Your task to perform on an android device: change text size in settings app Image 0: 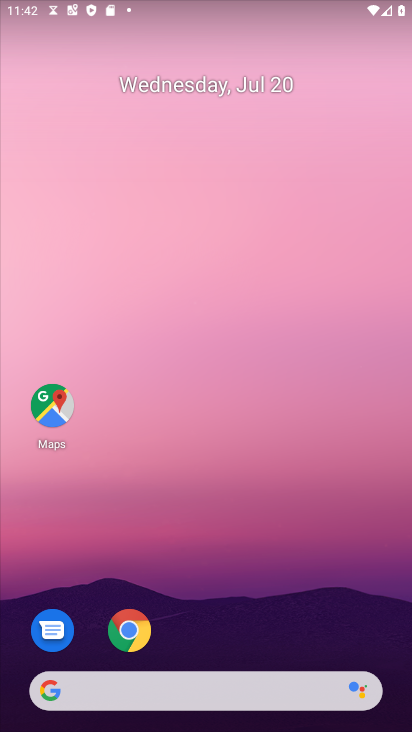
Step 0: drag from (78, 448) to (222, 75)
Your task to perform on an android device: change text size in settings app Image 1: 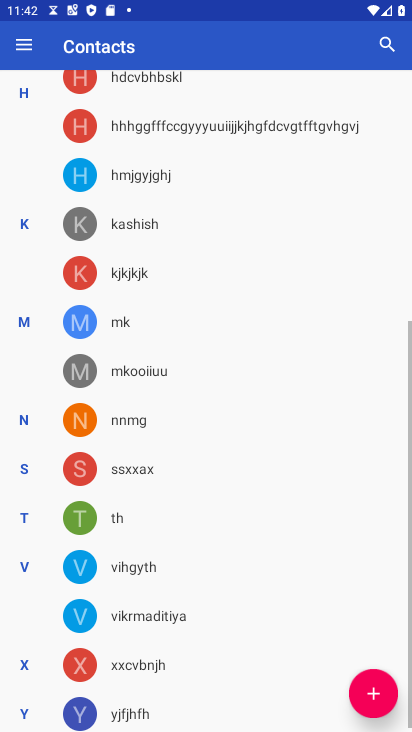
Step 1: press home button
Your task to perform on an android device: change text size in settings app Image 2: 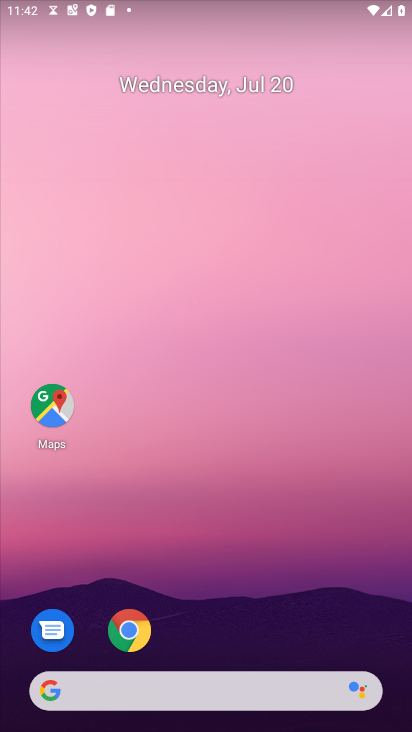
Step 2: drag from (31, 702) to (387, 7)
Your task to perform on an android device: change text size in settings app Image 3: 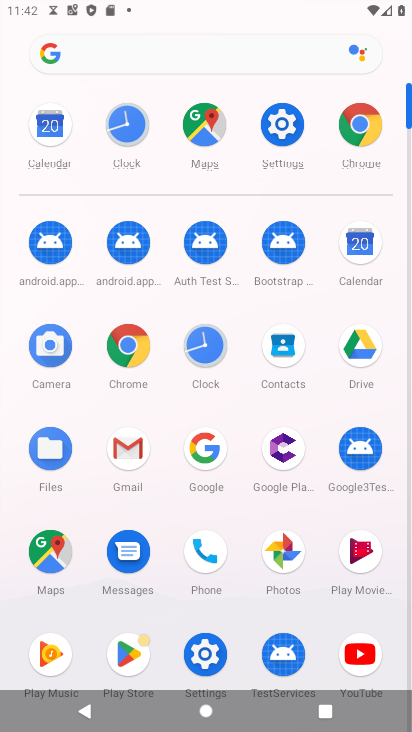
Step 3: click (201, 632)
Your task to perform on an android device: change text size in settings app Image 4: 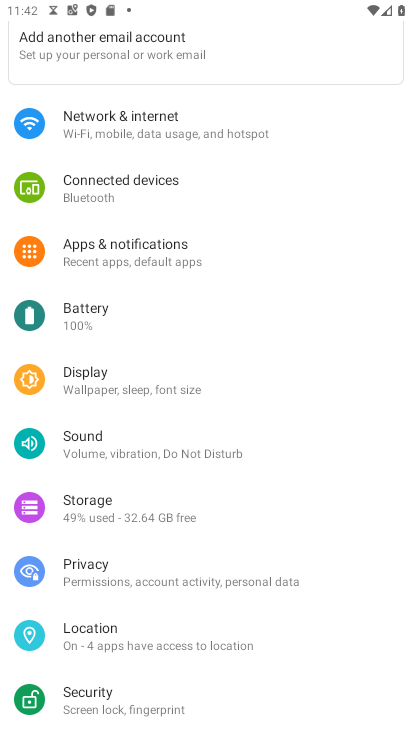
Step 4: click (164, 380)
Your task to perform on an android device: change text size in settings app Image 5: 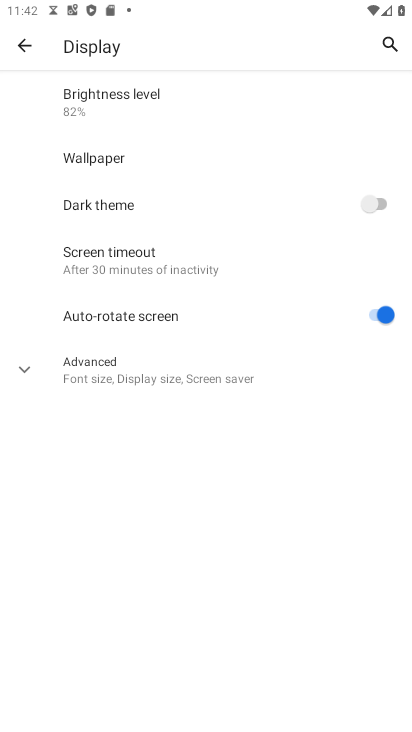
Step 5: click (127, 365)
Your task to perform on an android device: change text size in settings app Image 6: 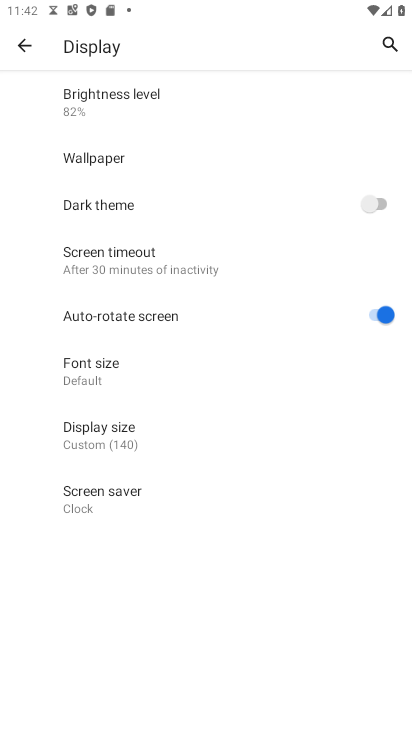
Step 6: click (121, 370)
Your task to perform on an android device: change text size in settings app Image 7: 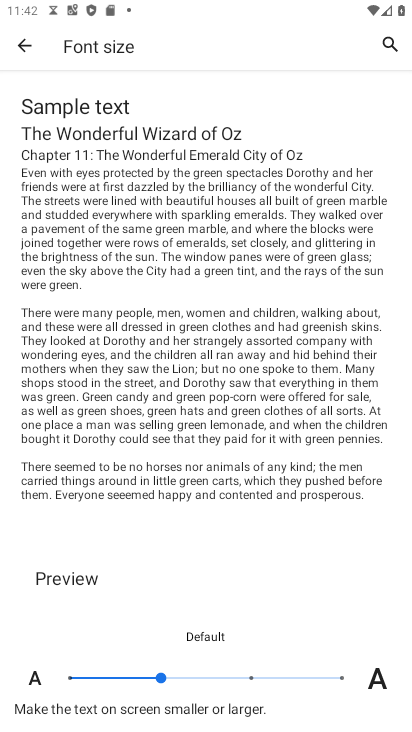
Step 7: click (191, 675)
Your task to perform on an android device: change text size in settings app Image 8: 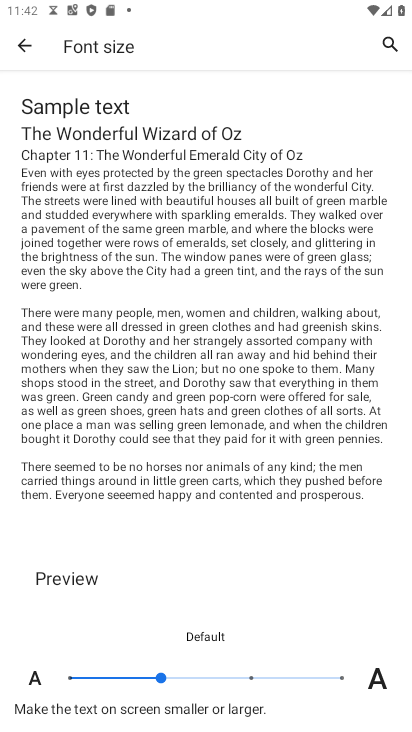
Step 8: click (193, 675)
Your task to perform on an android device: change text size in settings app Image 9: 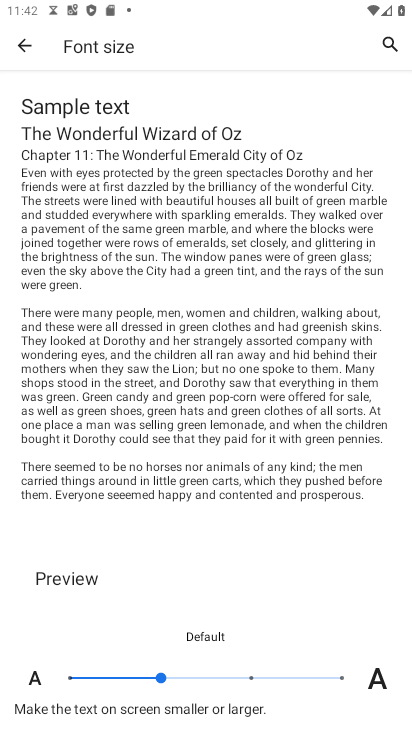
Step 9: drag from (160, 673) to (215, 677)
Your task to perform on an android device: change text size in settings app Image 10: 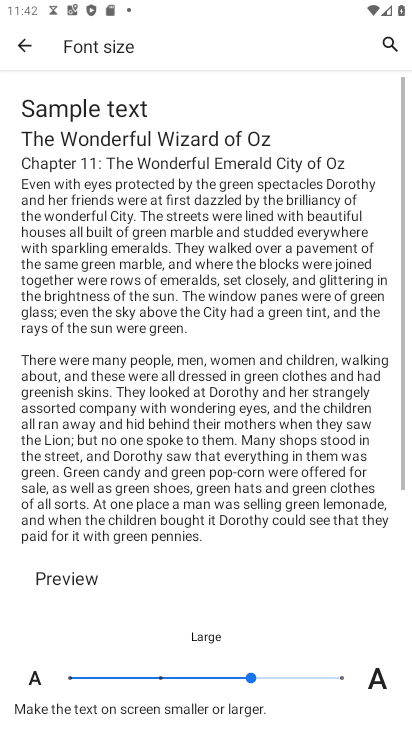
Step 10: click (196, 671)
Your task to perform on an android device: change text size in settings app Image 11: 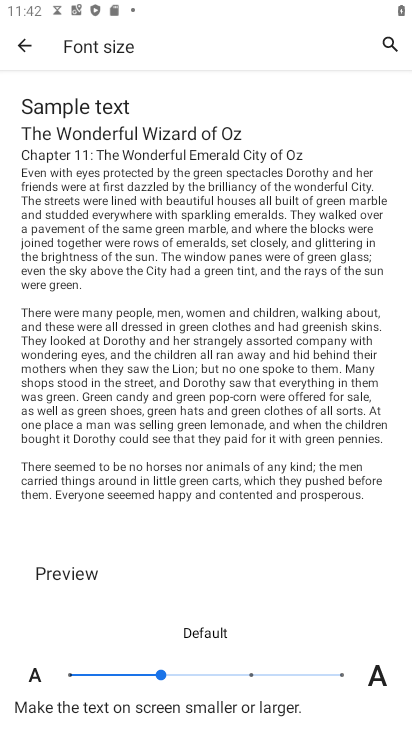
Step 11: click (218, 676)
Your task to perform on an android device: change text size in settings app Image 12: 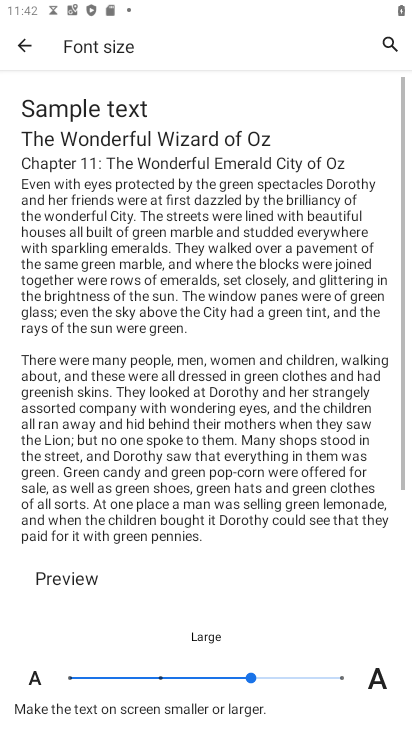
Step 12: click (218, 670)
Your task to perform on an android device: change text size in settings app Image 13: 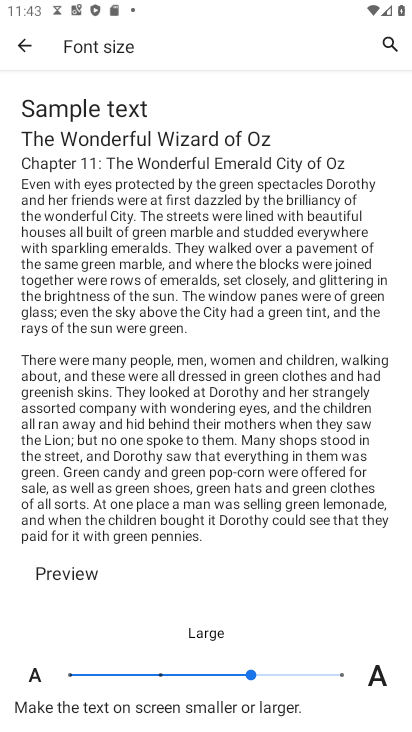
Step 13: task complete